Your task to perform on an android device: Go to network settings Image 0: 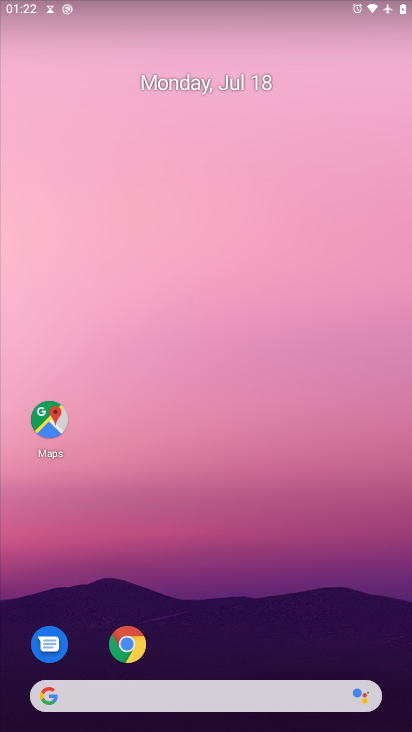
Step 0: drag from (234, 491) to (209, 51)
Your task to perform on an android device: Go to network settings Image 1: 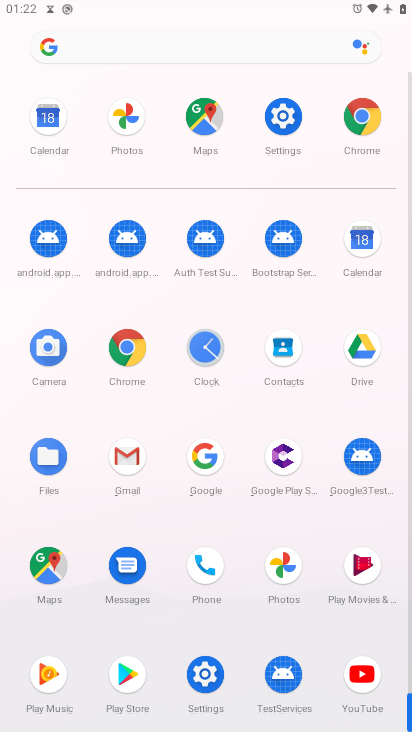
Step 1: click (290, 118)
Your task to perform on an android device: Go to network settings Image 2: 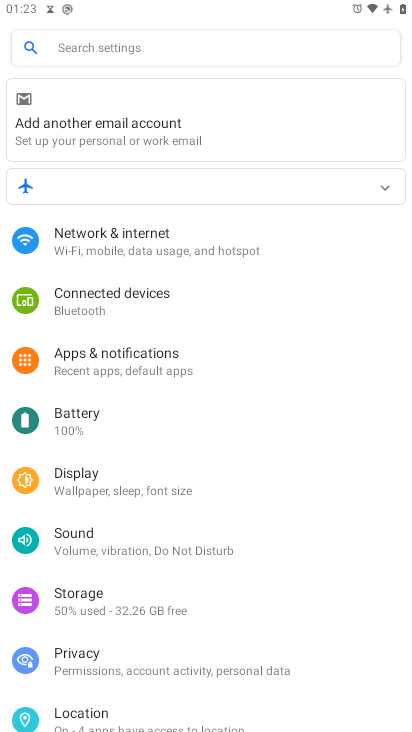
Step 2: click (110, 244)
Your task to perform on an android device: Go to network settings Image 3: 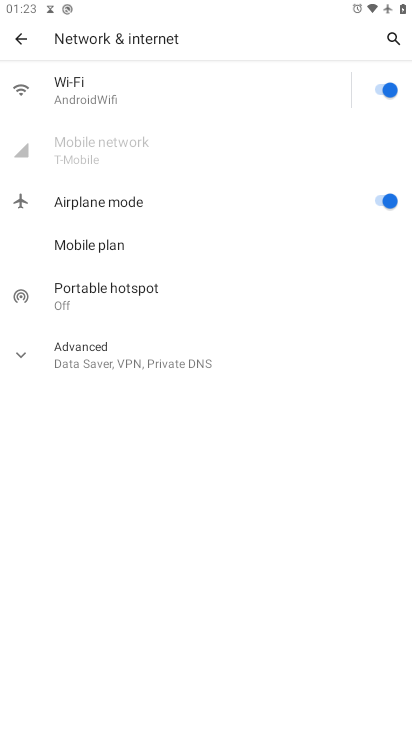
Step 3: task complete